Your task to perform on an android device: Open the map Image 0: 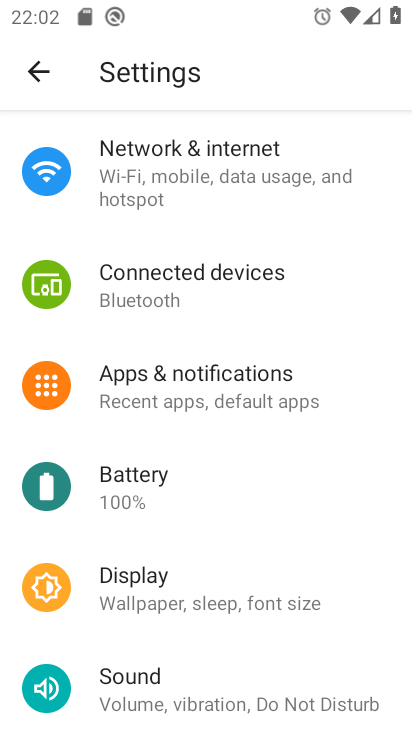
Step 0: press home button
Your task to perform on an android device: Open the map Image 1: 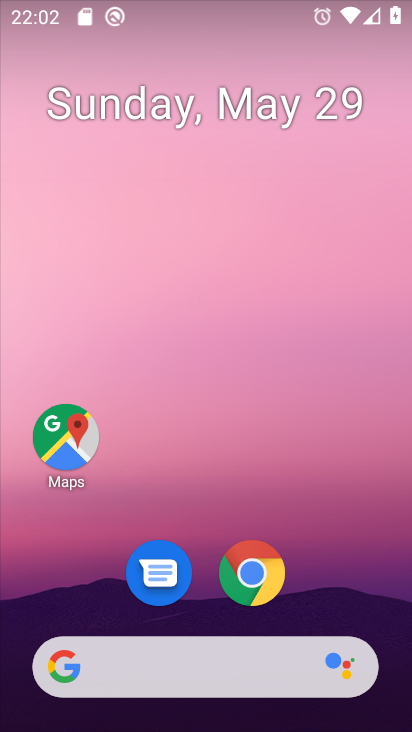
Step 1: click (66, 447)
Your task to perform on an android device: Open the map Image 2: 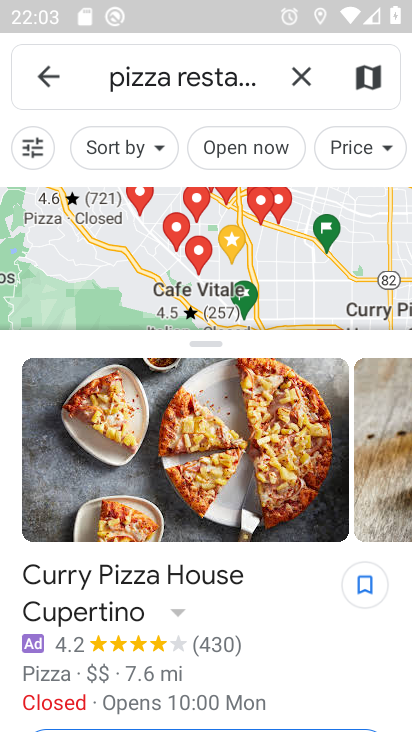
Step 2: click (300, 75)
Your task to perform on an android device: Open the map Image 3: 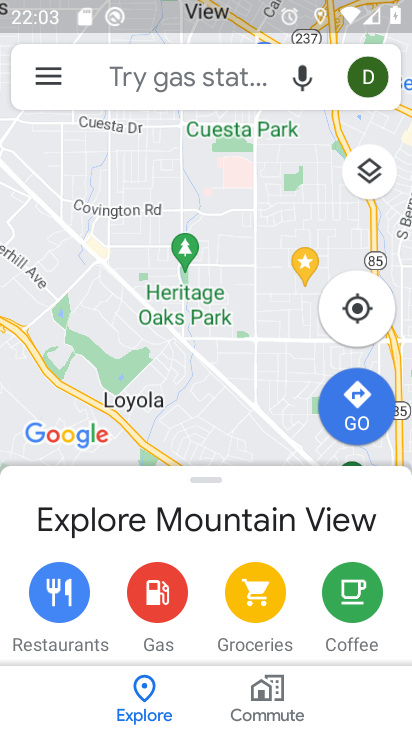
Step 3: task complete